Your task to perform on an android device: Go to display settings Image 0: 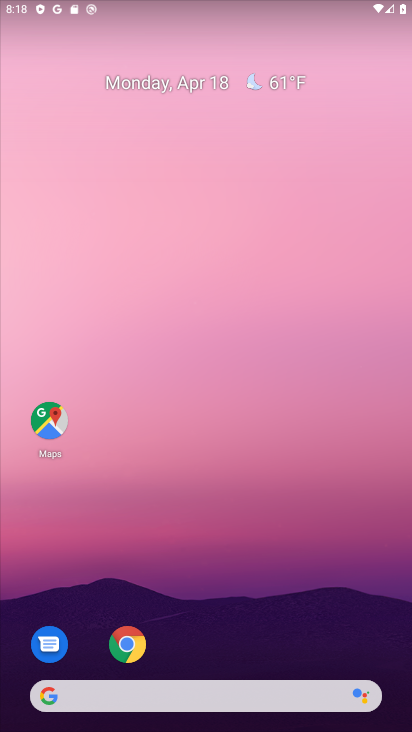
Step 0: drag from (236, 687) to (185, 174)
Your task to perform on an android device: Go to display settings Image 1: 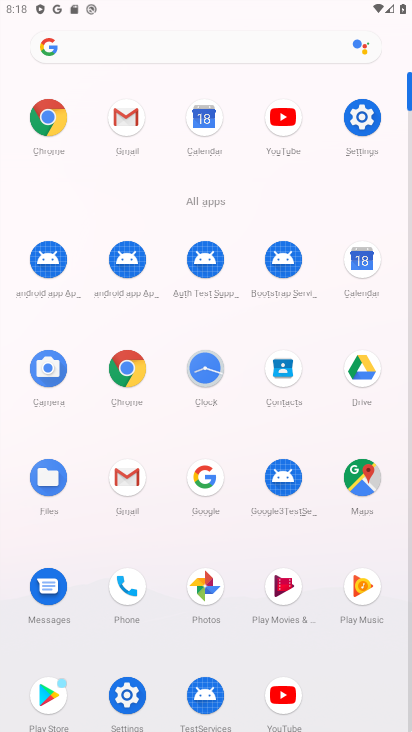
Step 1: click (371, 118)
Your task to perform on an android device: Go to display settings Image 2: 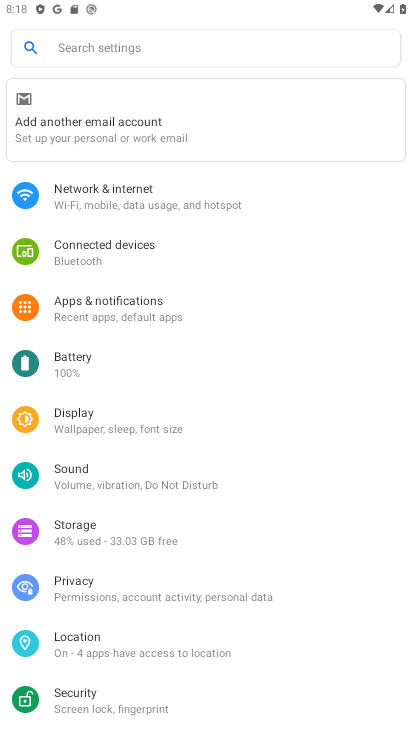
Step 2: click (82, 406)
Your task to perform on an android device: Go to display settings Image 3: 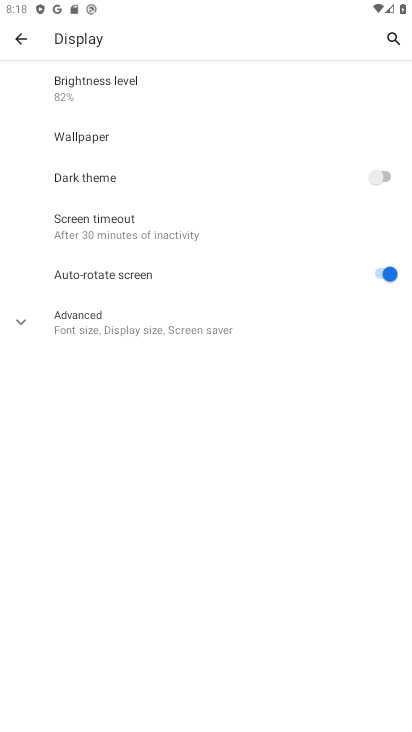
Step 3: task complete